Your task to perform on an android device: install app "HBO Max: Stream TV & Movies" Image 0: 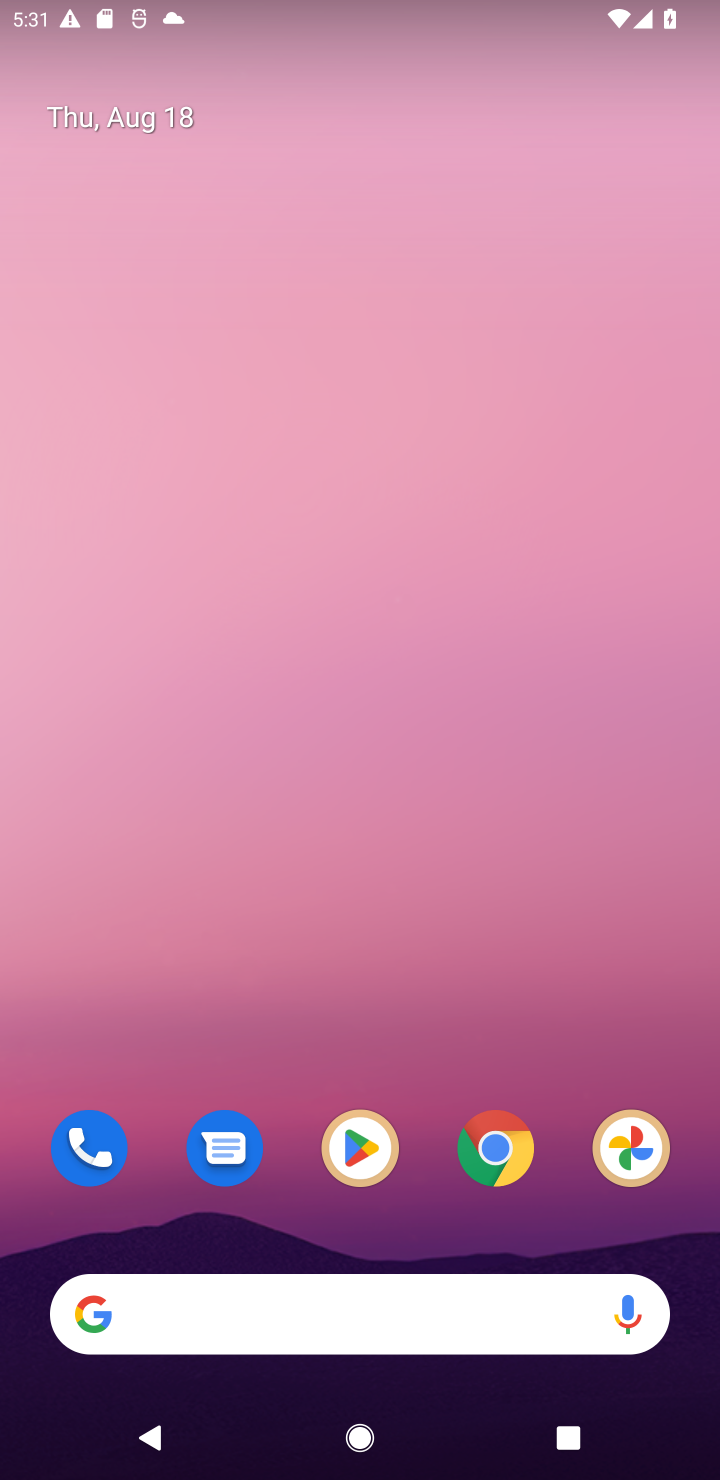
Step 0: drag from (256, 1017) to (305, 358)
Your task to perform on an android device: install app "HBO Max: Stream TV & Movies" Image 1: 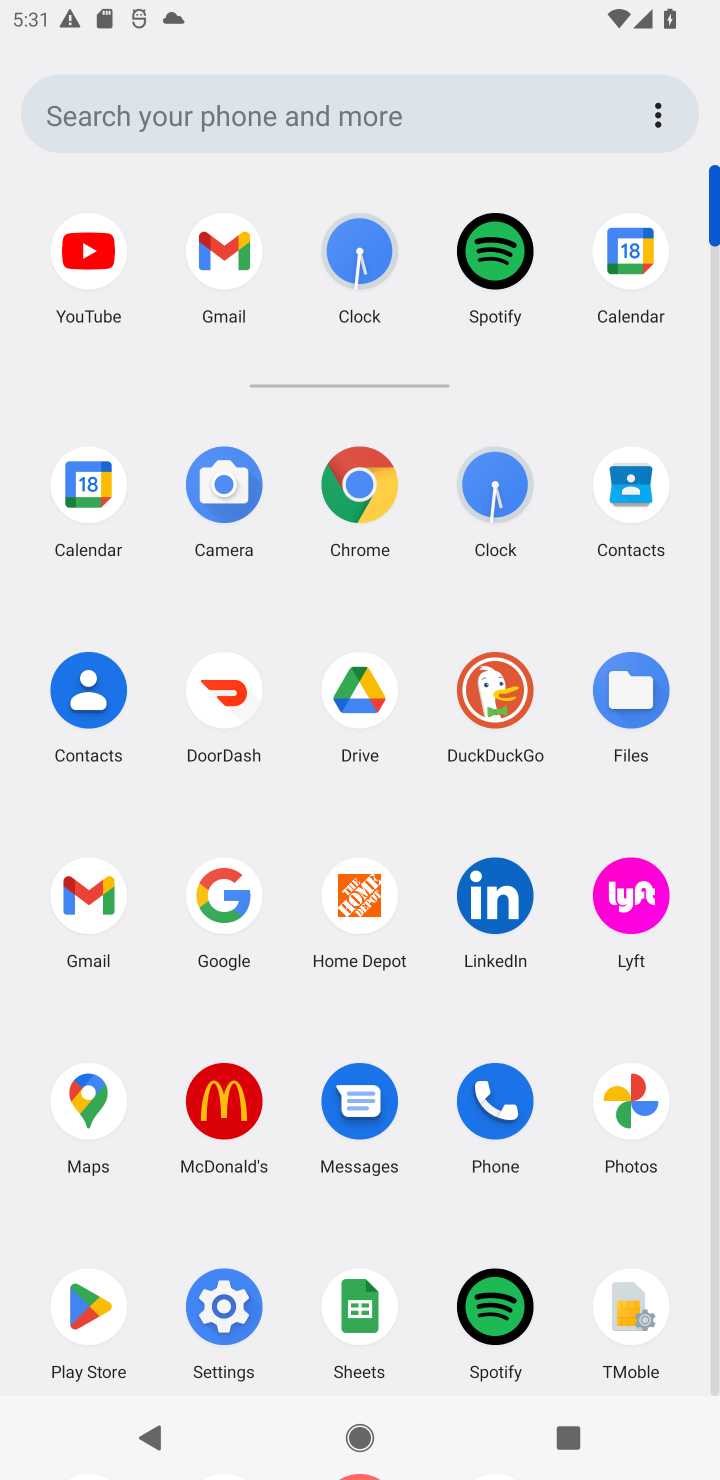
Step 1: click (68, 1295)
Your task to perform on an android device: install app "HBO Max: Stream TV & Movies" Image 2: 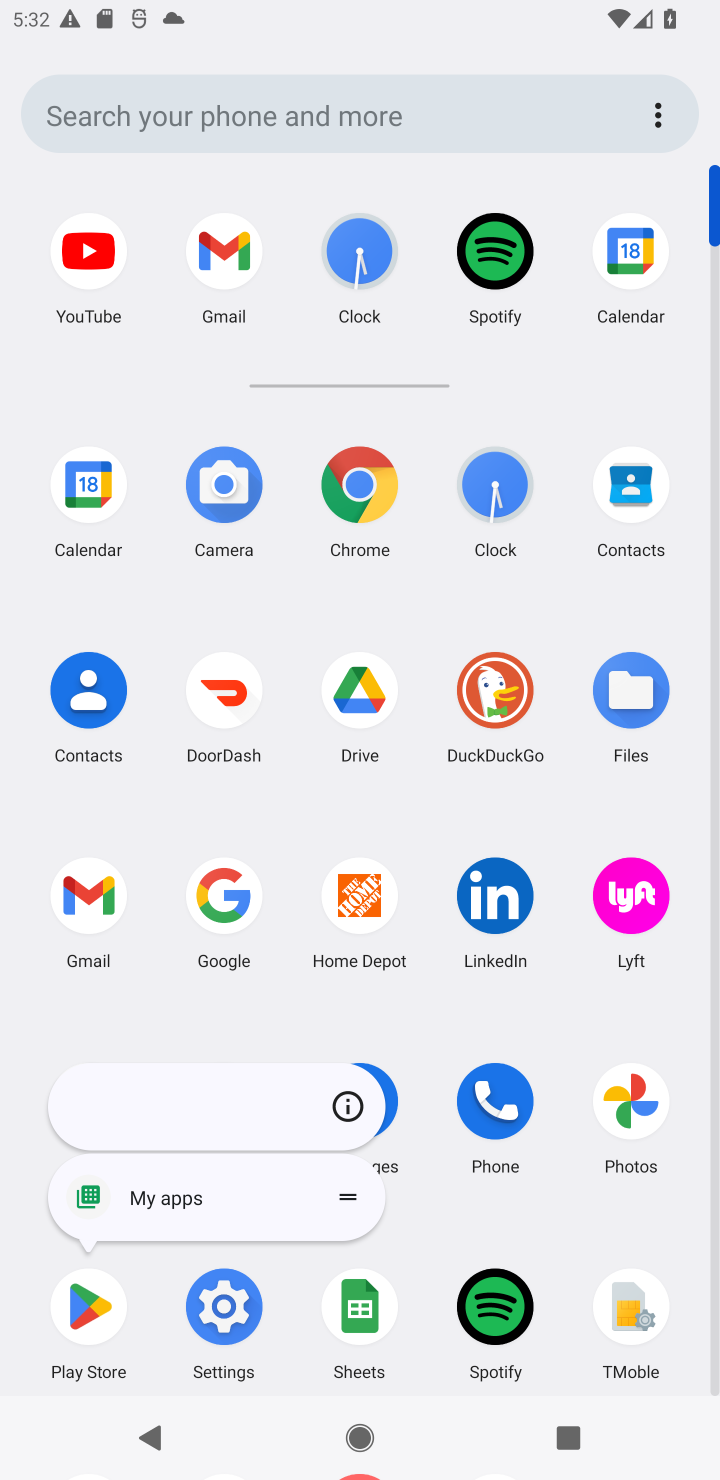
Step 2: click (90, 1297)
Your task to perform on an android device: install app "HBO Max: Stream TV & Movies" Image 3: 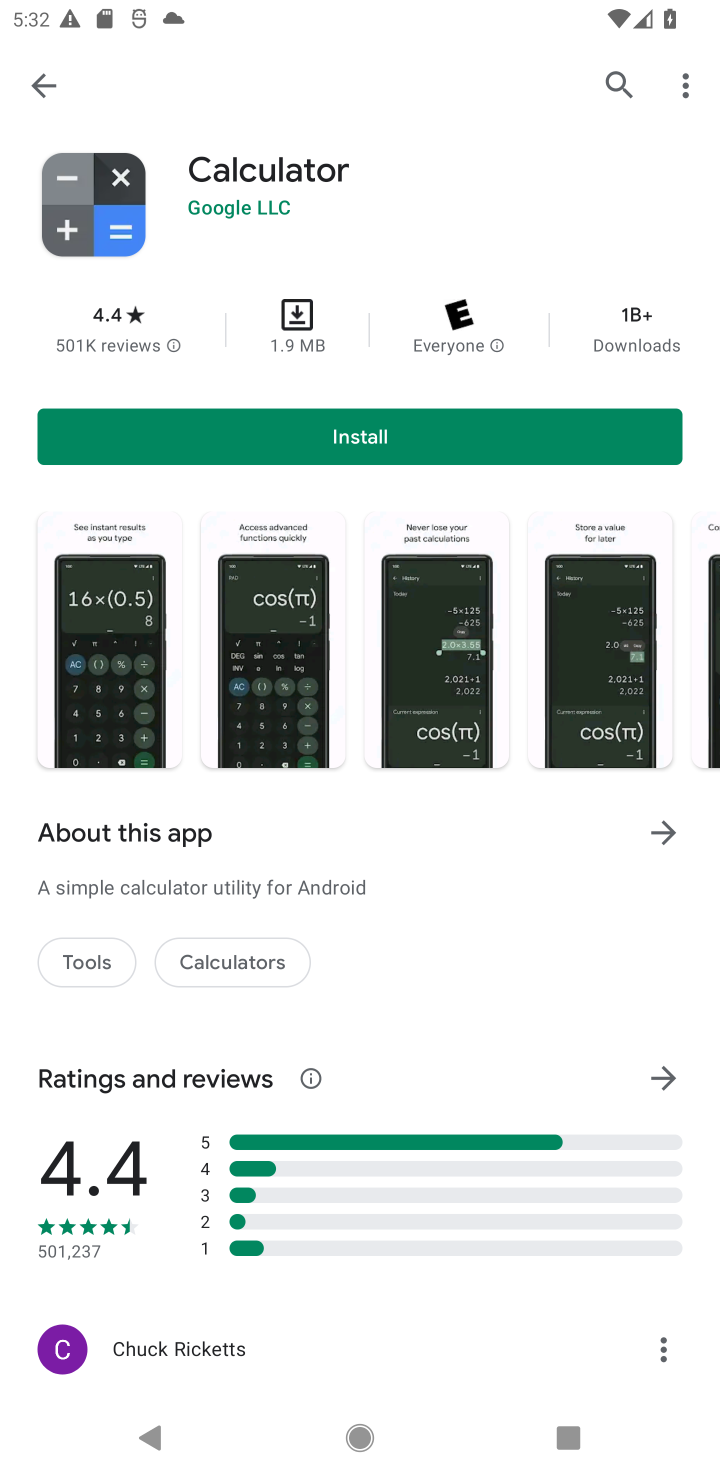
Step 3: press back button
Your task to perform on an android device: install app "HBO Max: Stream TV & Movies" Image 4: 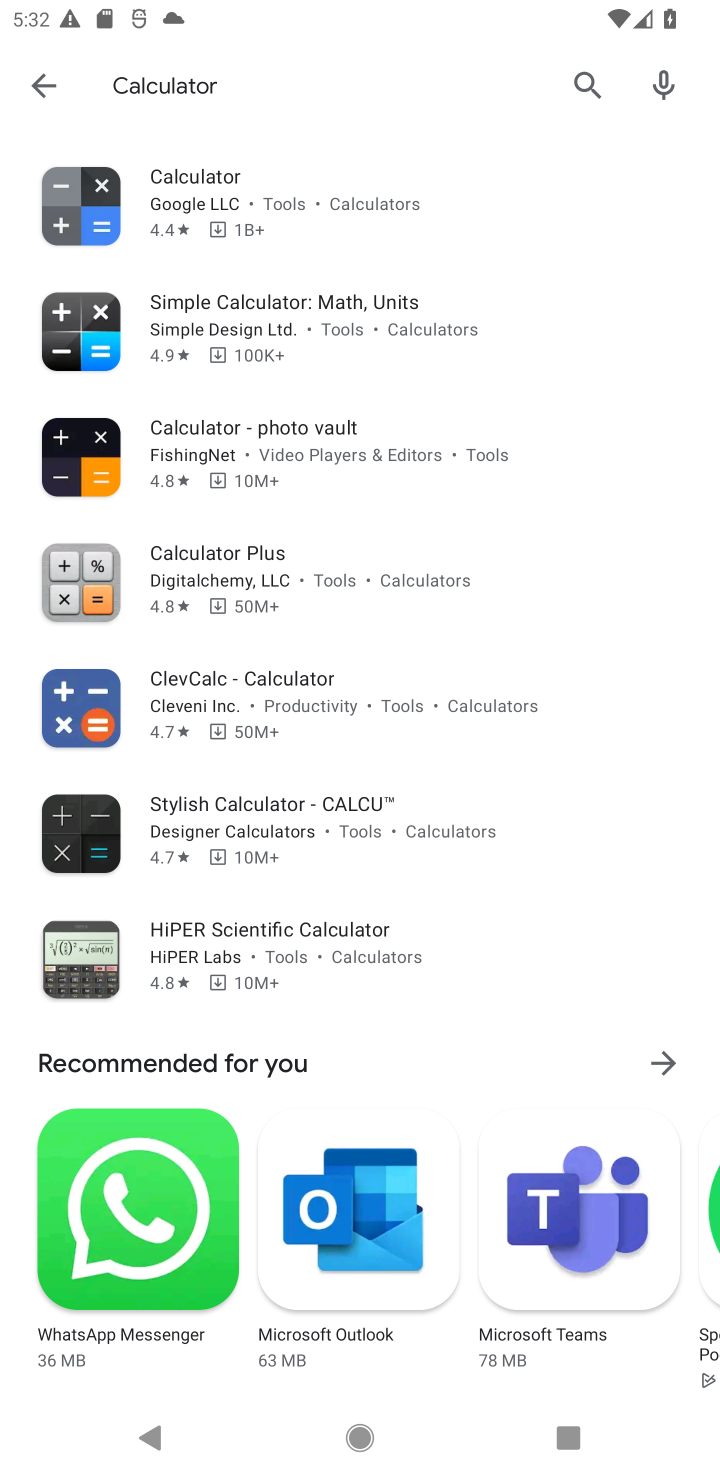
Step 4: press back button
Your task to perform on an android device: install app "HBO Max: Stream TV & Movies" Image 5: 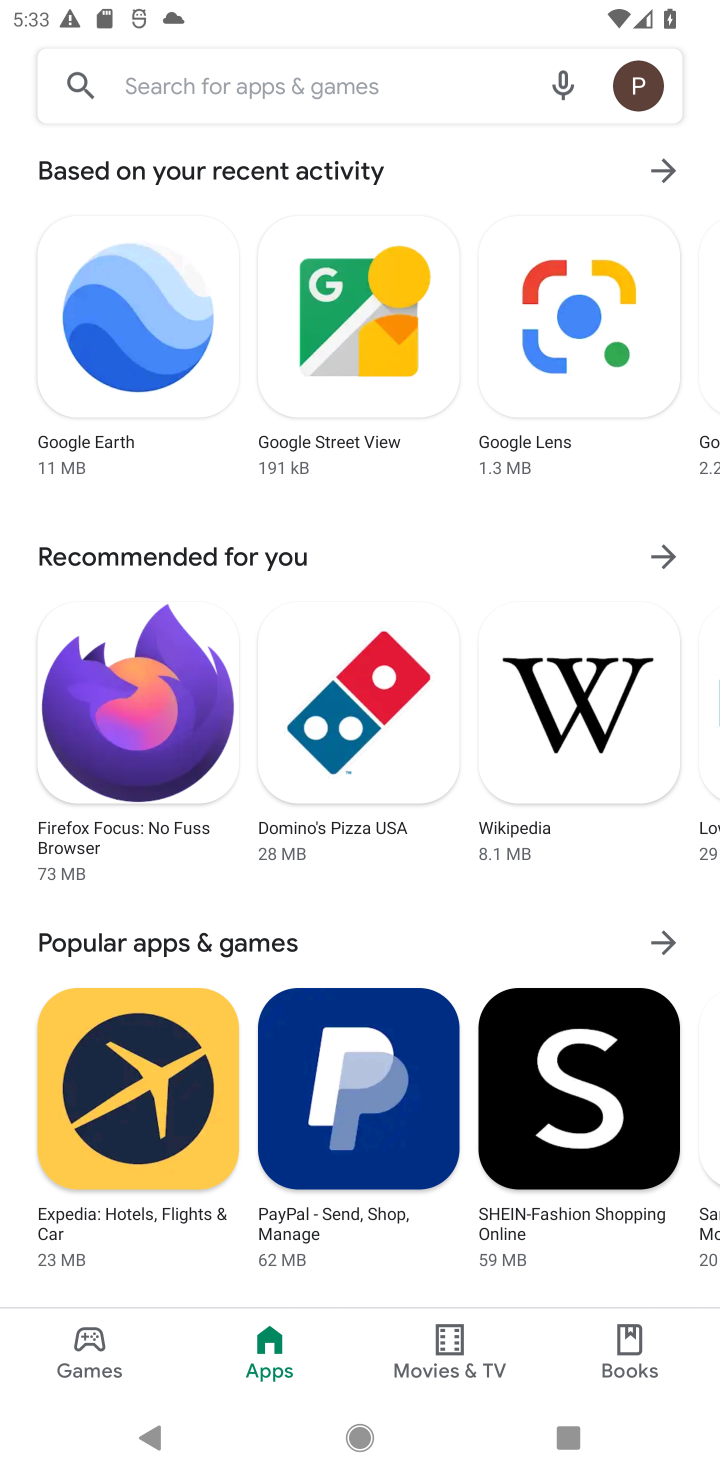
Step 5: click (263, 87)
Your task to perform on an android device: install app "HBO Max: Stream TV & Movies" Image 6: 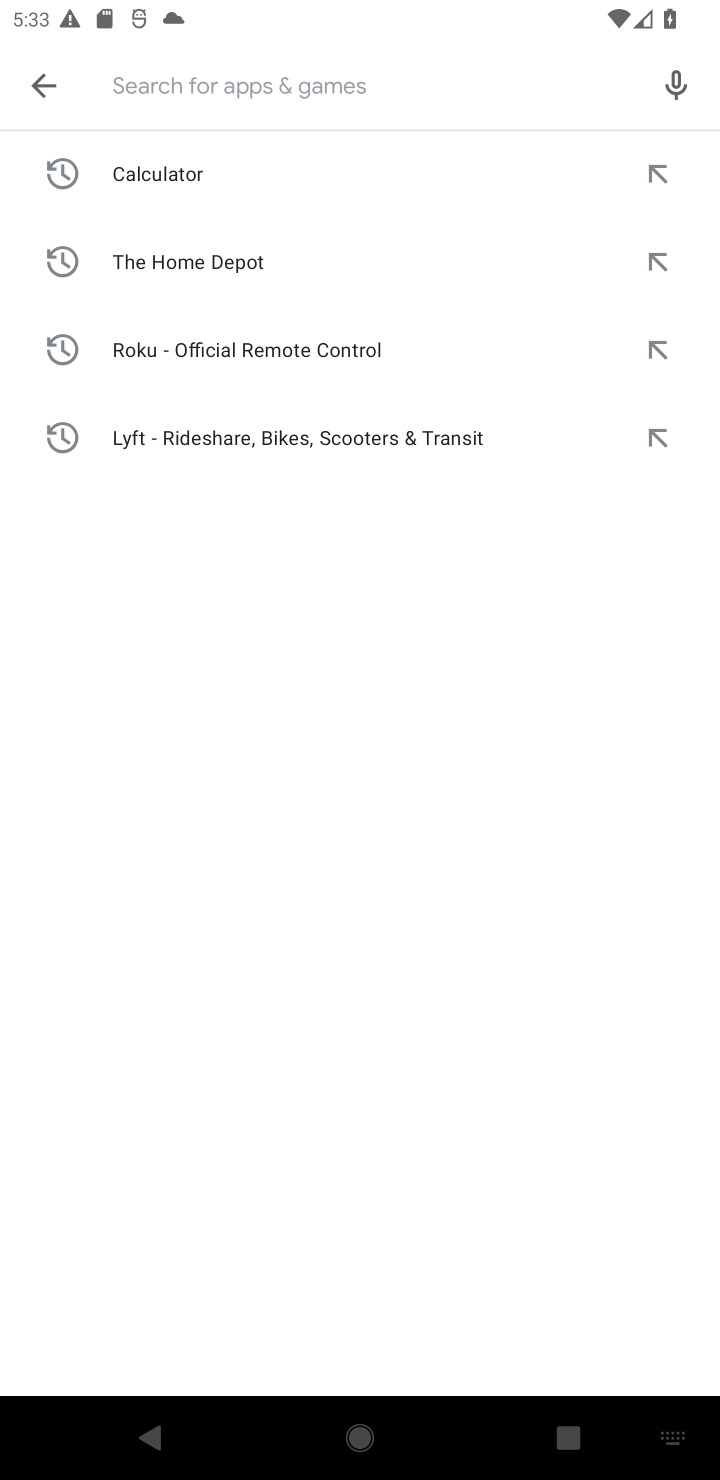
Step 6: type "HBO Max: Stream TV & Movies"
Your task to perform on an android device: install app "HBO Max: Stream TV & Movies" Image 7: 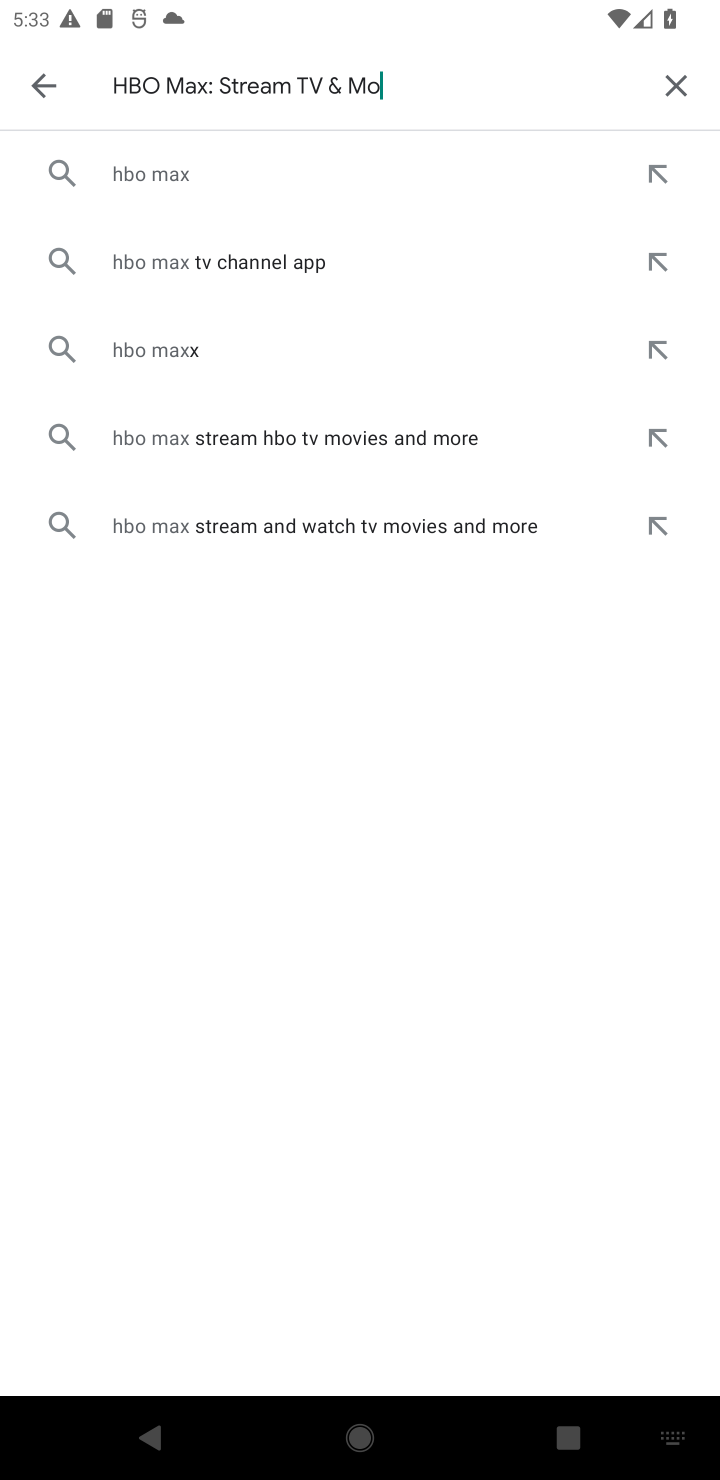
Step 7: press enter
Your task to perform on an android device: install app "HBO Max: Stream TV & Movies" Image 8: 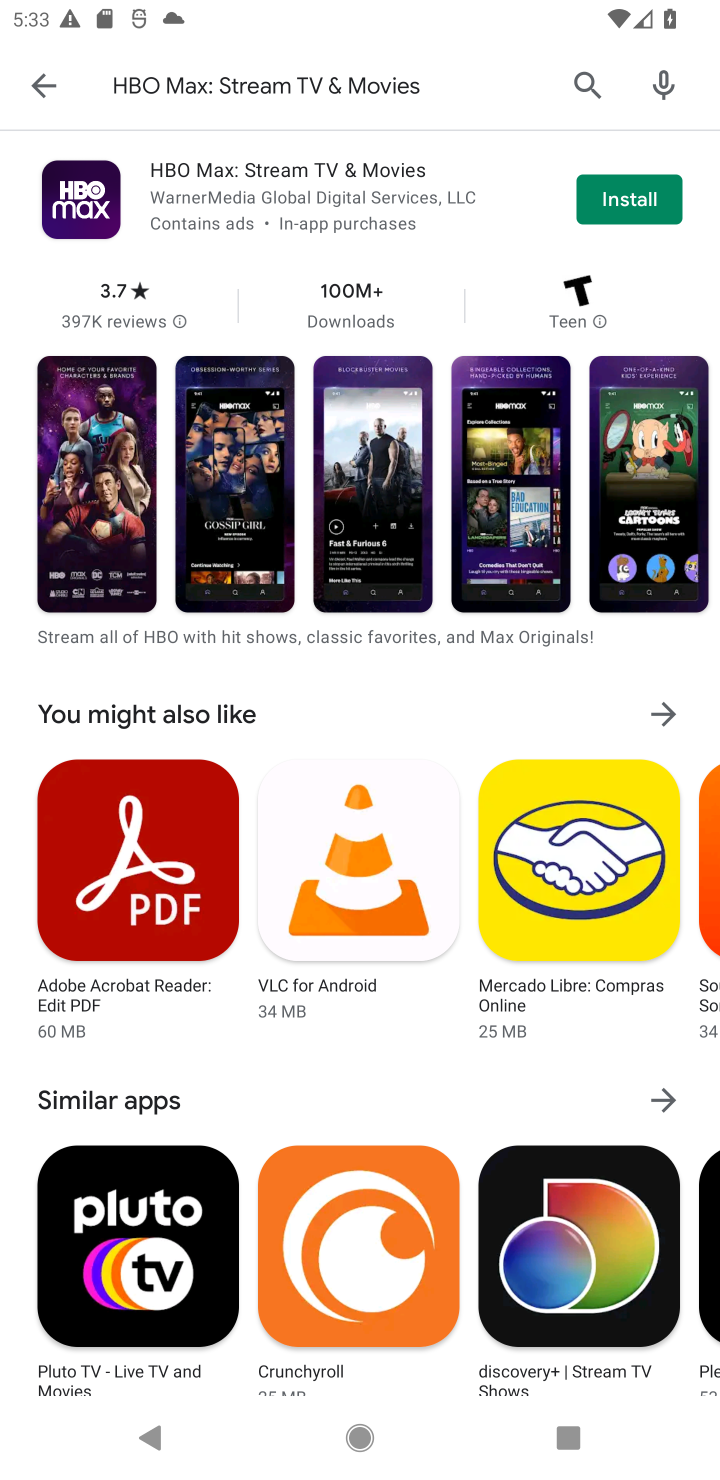
Step 8: click (615, 209)
Your task to perform on an android device: install app "HBO Max: Stream TV & Movies" Image 9: 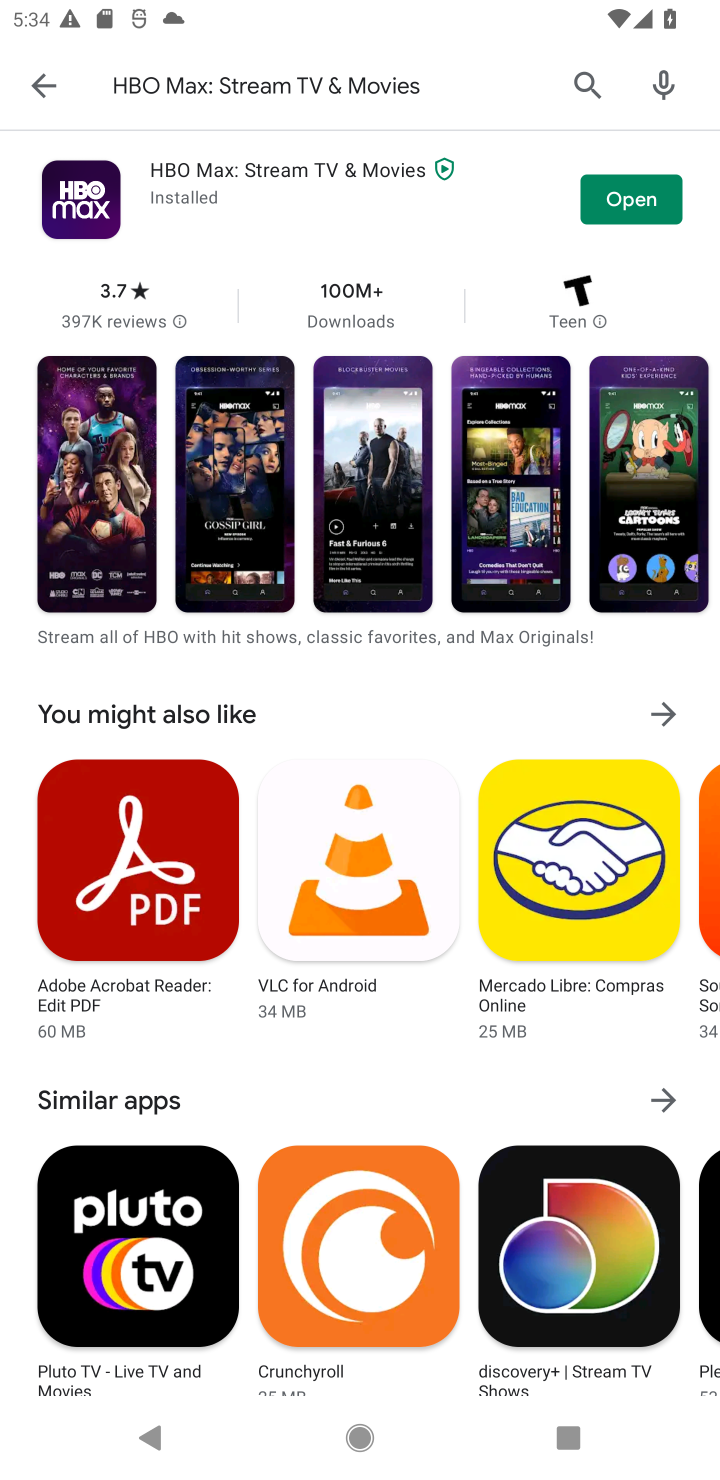
Step 9: task complete